Your task to perform on an android device: check android version Image 0: 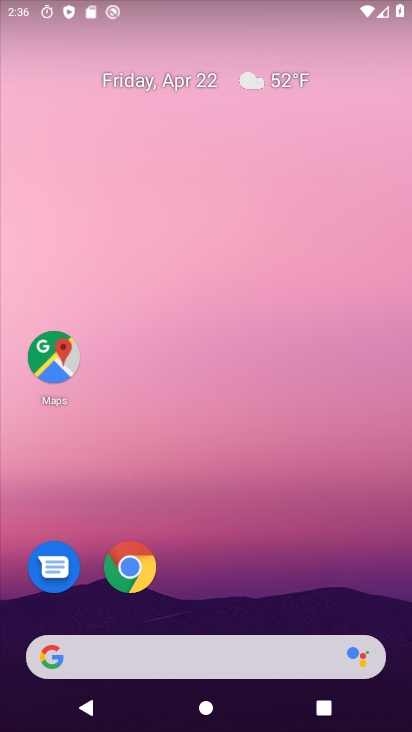
Step 0: drag from (219, 335) to (191, 32)
Your task to perform on an android device: check android version Image 1: 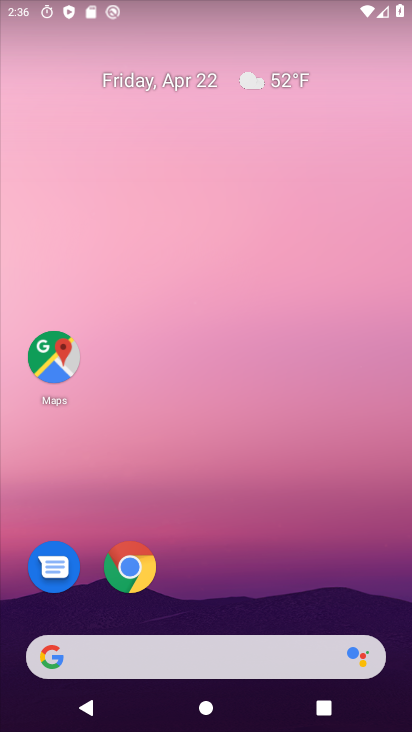
Step 1: drag from (249, 549) to (241, 22)
Your task to perform on an android device: check android version Image 2: 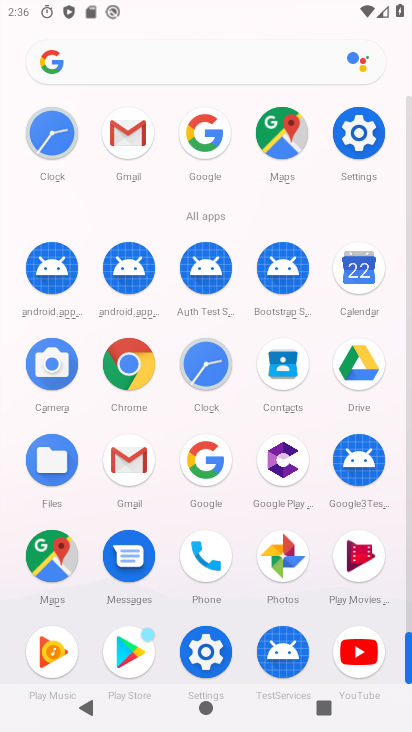
Step 2: click (358, 145)
Your task to perform on an android device: check android version Image 3: 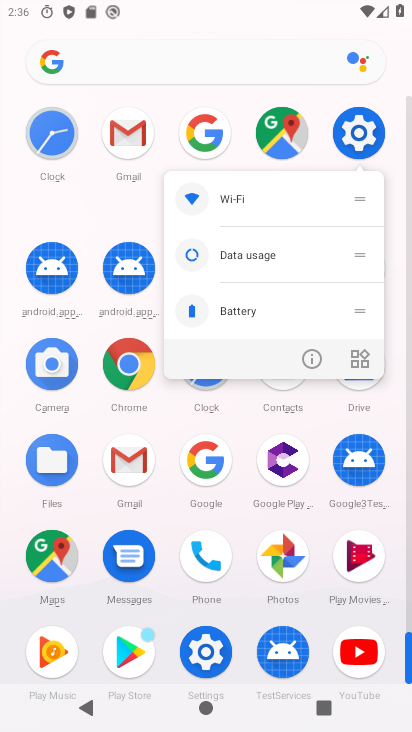
Step 3: click (358, 130)
Your task to perform on an android device: check android version Image 4: 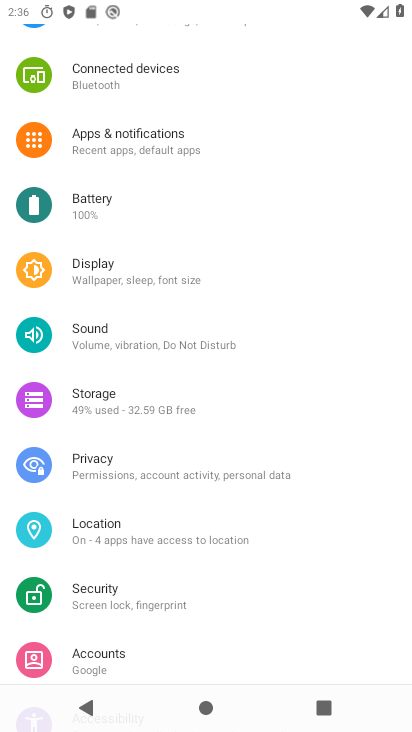
Step 4: drag from (174, 605) to (171, 136)
Your task to perform on an android device: check android version Image 5: 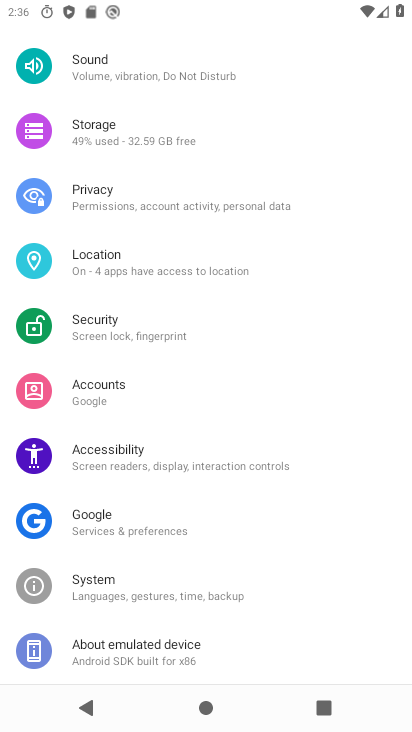
Step 5: click (152, 646)
Your task to perform on an android device: check android version Image 6: 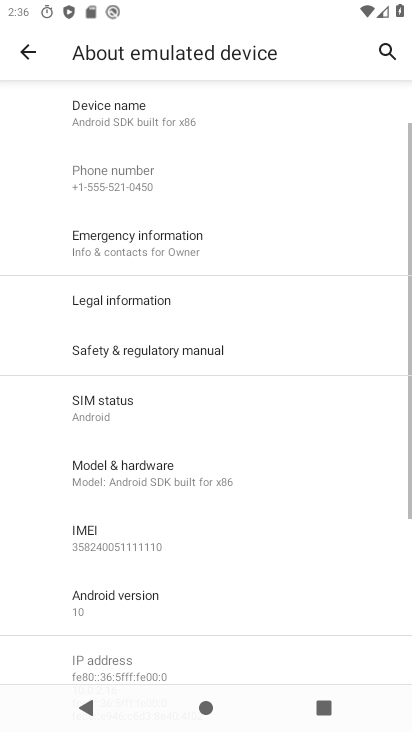
Step 6: click (181, 598)
Your task to perform on an android device: check android version Image 7: 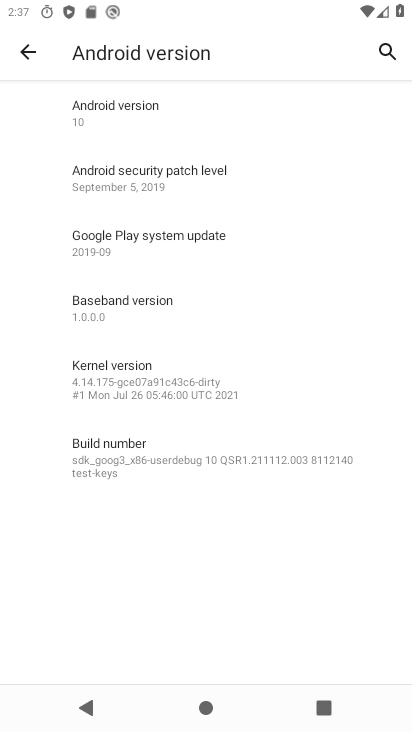
Step 7: task complete